Your task to perform on an android device: Set the phone to "Do not disturb". Image 0: 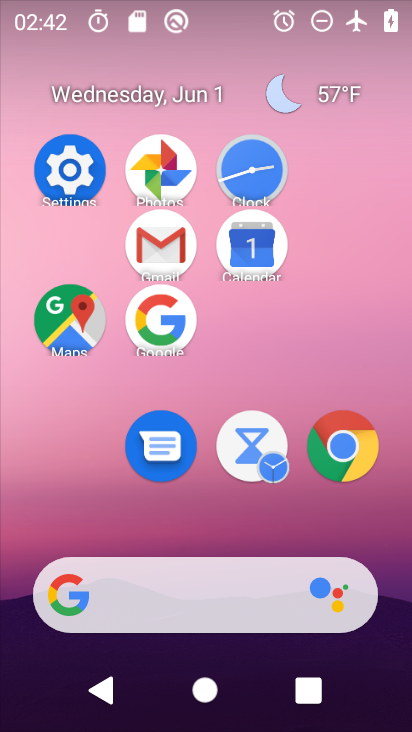
Step 0: click (82, 168)
Your task to perform on an android device: Set the phone to "Do not disturb". Image 1: 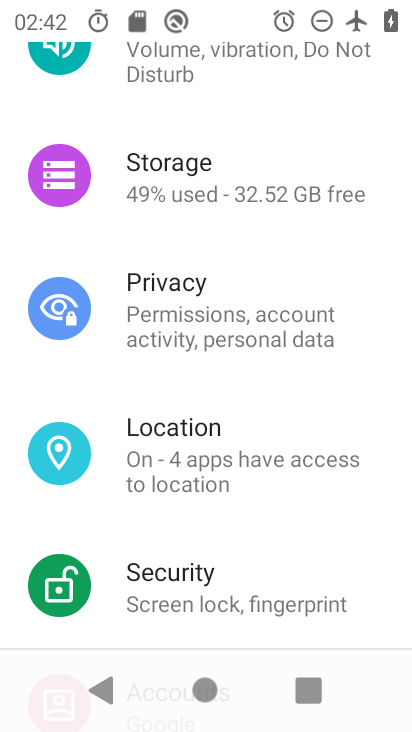
Step 1: drag from (234, 116) to (252, 522)
Your task to perform on an android device: Set the phone to "Do not disturb". Image 2: 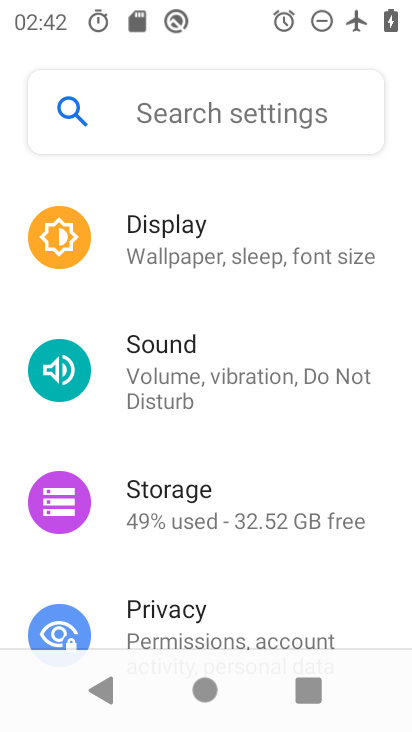
Step 2: click (206, 380)
Your task to perform on an android device: Set the phone to "Do not disturb". Image 3: 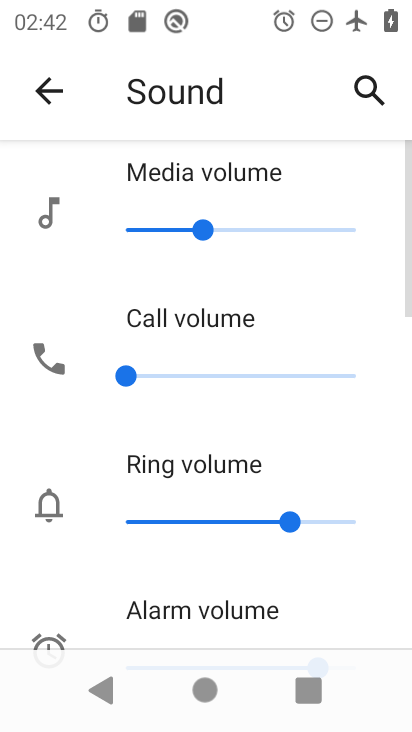
Step 3: task complete